Your task to perform on an android device: Open Google Chrome Image 0: 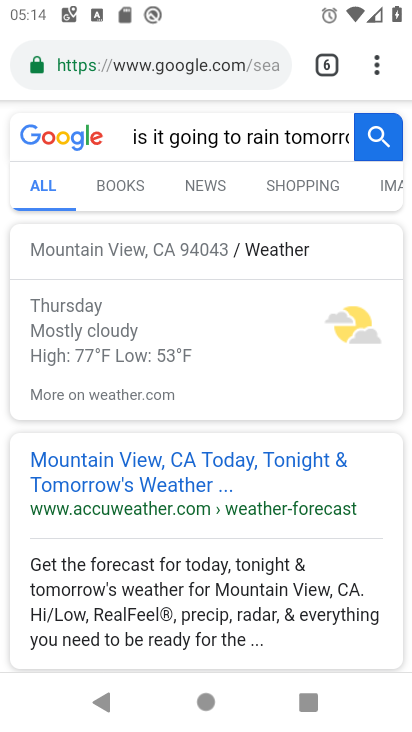
Step 0: press home button
Your task to perform on an android device: Open Google Chrome Image 1: 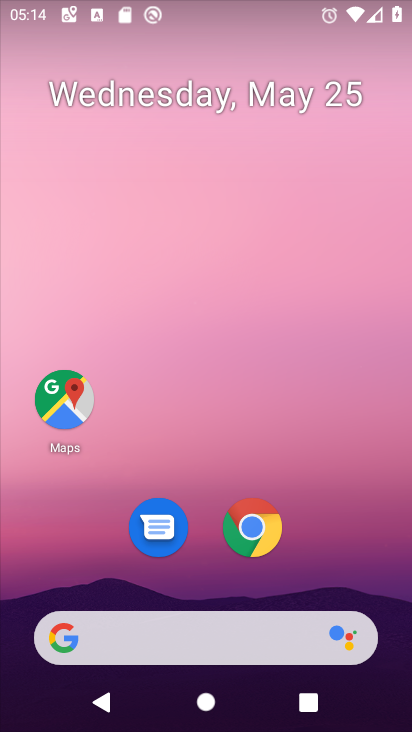
Step 1: drag from (292, 556) to (315, 66)
Your task to perform on an android device: Open Google Chrome Image 2: 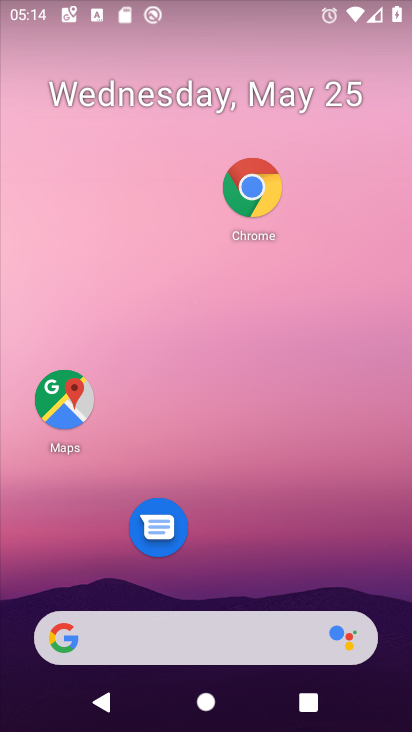
Step 2: press home button
Your task to perform on an android device: Open Google Chrome Image 3: 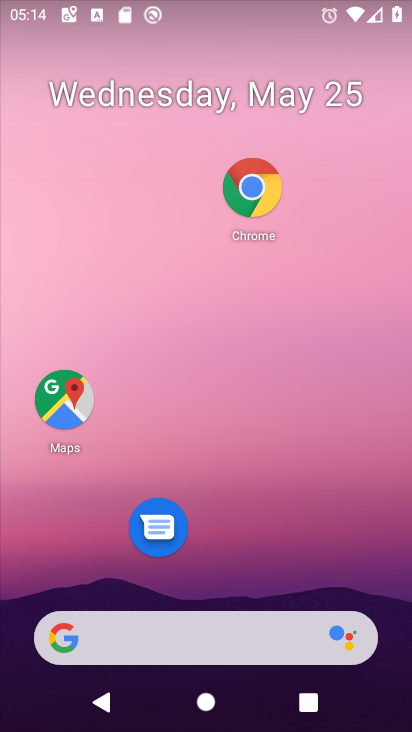
Step 3: drag from (220, 569) to (258, 69)
Your task to perform on an android device: Open Google Chrome Image 4: 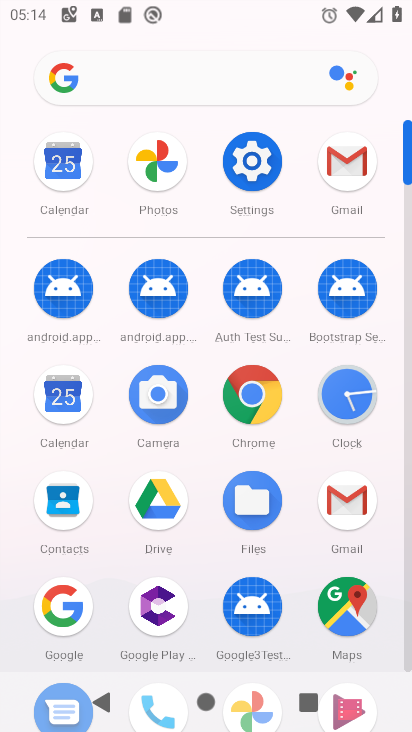
Step 4: click (262, 407)
Your task to perform on an android device: Open Google Chrome Image 5: 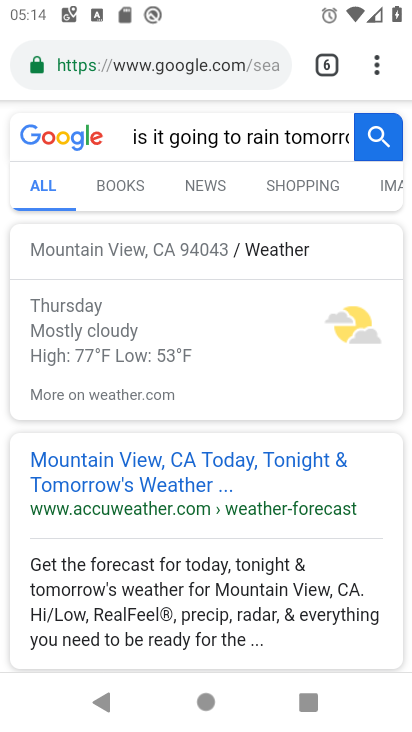
Step 5: task complete